Your task to perform on an android device: Open calendar and show me the first week of next month Image 0: 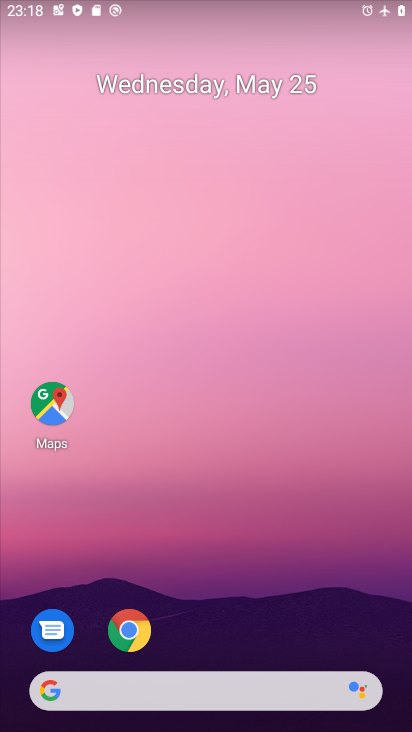
Step 0: drag from (195, 628) to (274, 72)
Your task to perform on an android device: Open calendar and show me the first week of next month Image 1: 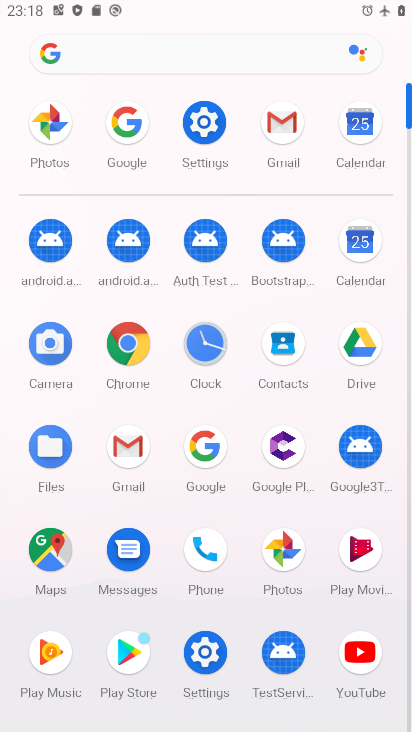
Step 1: click (352, 125)
Your task to perform on an android device: Open calendar and show me the first week of next month Image 2: 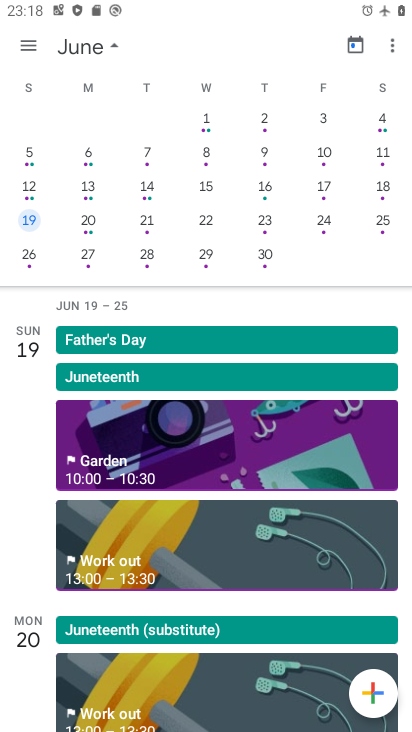
Step 2: click (210, 116)
Your task to perform on an android device: Open calendar and show me the first week of next month Image 3: 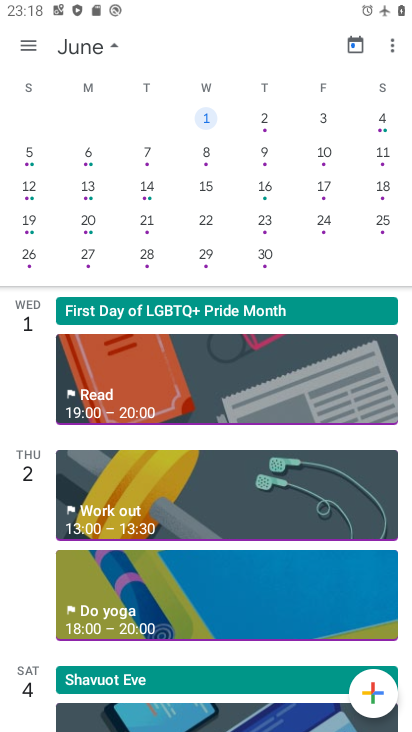
Step 3: task complete